Your task to perform on an android device: empty trash in google photos Image 0: 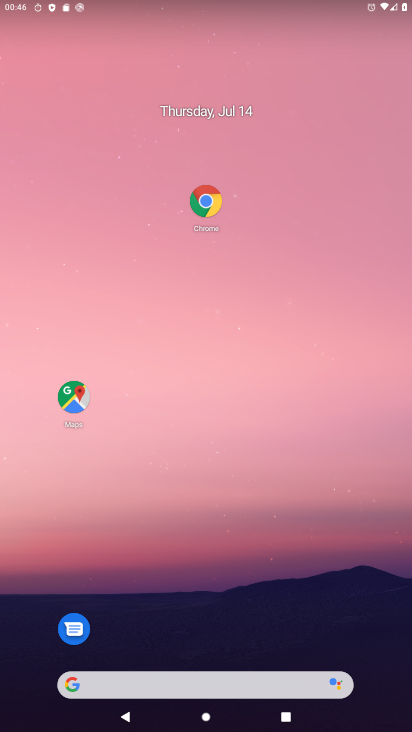
Step 0: drag from (210, 672) to (218, 47)
Your task to perform on an android device: empty trash in google photos Image 1: 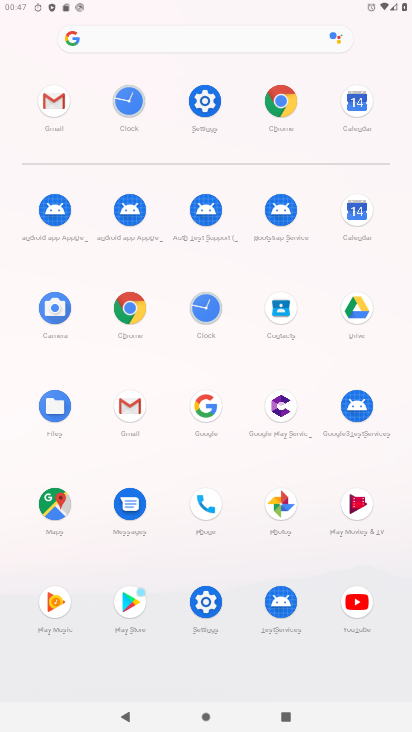
Step 1: click (283, 512)
Your task to perform on an android device: empty trash in google photos Image 2: 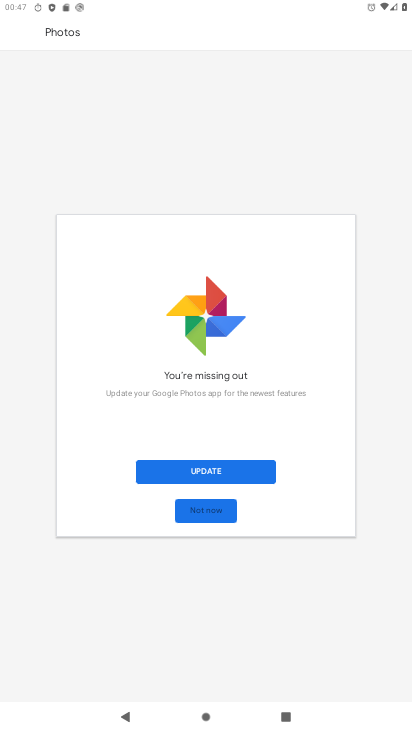
Step 2: click (201, 505)
Your task to perform on an android device: empty trash in google photos Image 3: 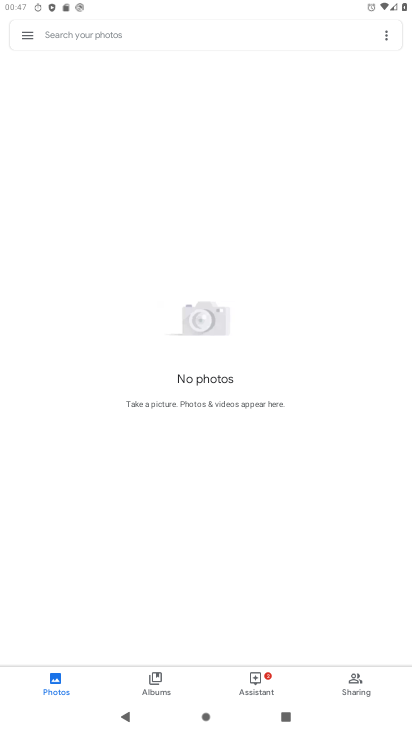
Step 3: click (29, 32)
Your task to perform on an android device: empty trash in google photos Image 4: 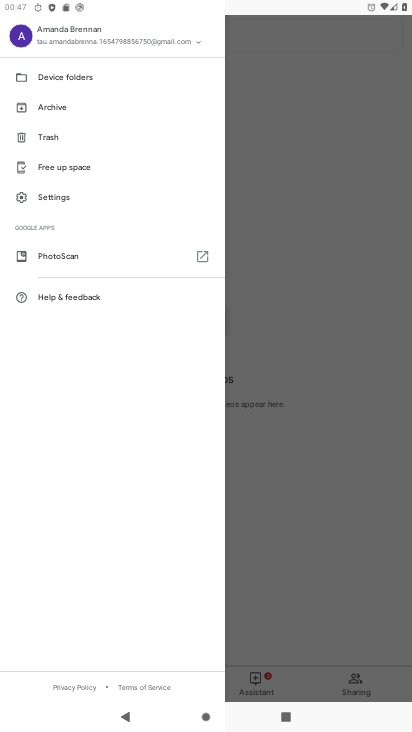
Step 4: click (34, 139)
Your task to perform on an android device: empty trash in google photos Image 5: 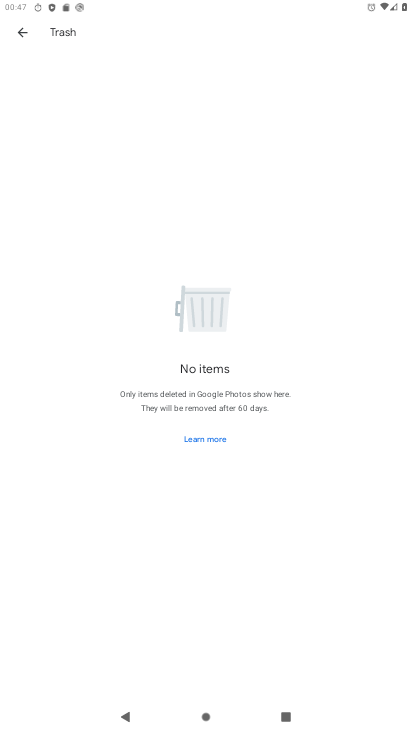
Step 5: task complete